Your task to perform on an android device: Go to notification settings Image 0: 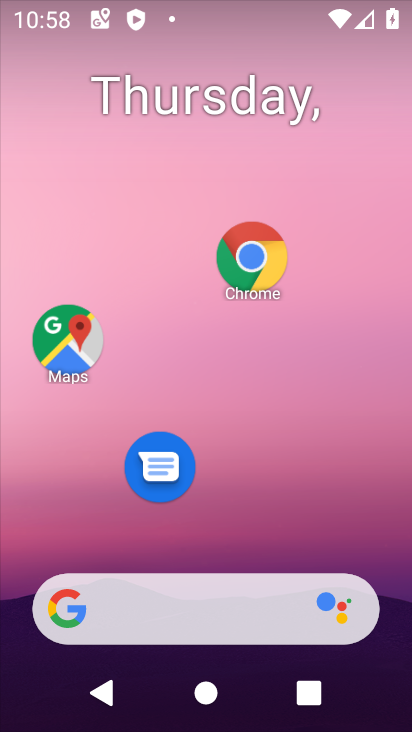
Step 0: drag from (138, 527) to (186, 182)
Your task to perform on an android device: Go to notification settings Image 1: 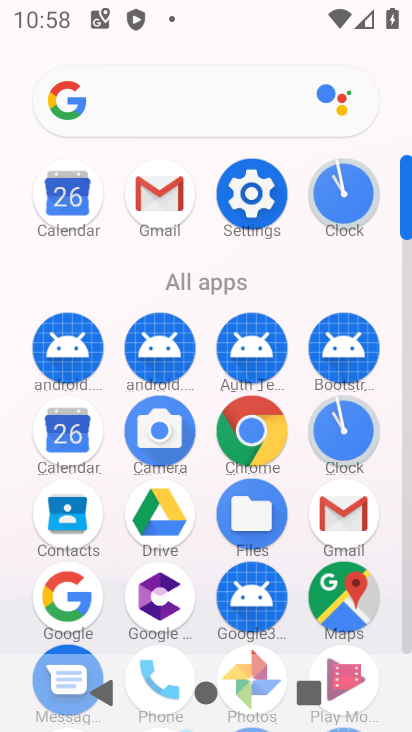
Step 1: click (249, 181)
Your task to perform on an android device: Go to notification settings Image 2: 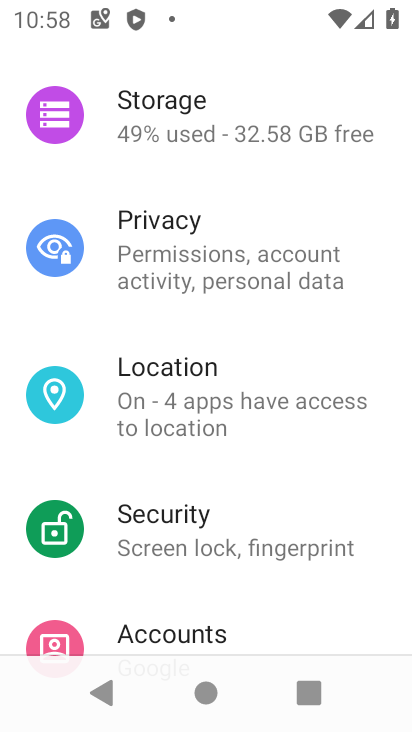
Step 2: drag from (184, 508) to (267, 110)
Your task to perform on an android device: Go to notification settings Image 3: 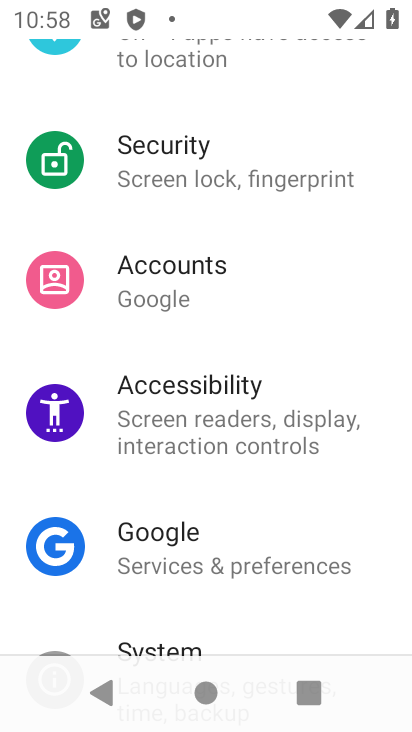
Step 3: drag from (269, 196) to (298, 610)
Your task to perform on an android device: Go to notification settings Image 4: 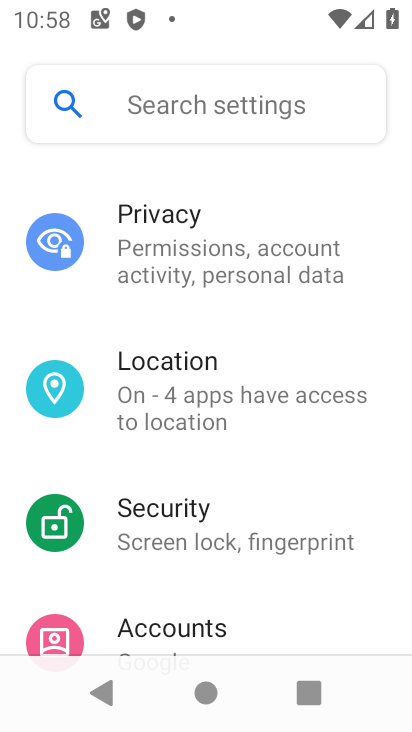
Step 4: drag from (293, 143) to (288, 572)
Your task to perform on an android device: Go to notification settings Image 5: 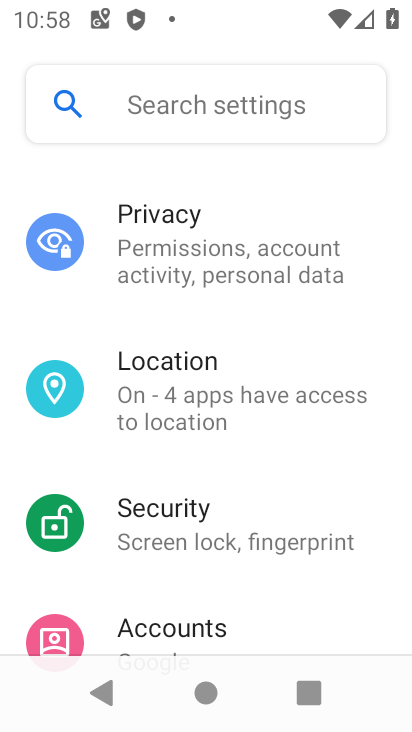
Step 5: drag from (266, 242) to (269, 610)
Your task to perform on an android device: Go to notification settings Image 6: 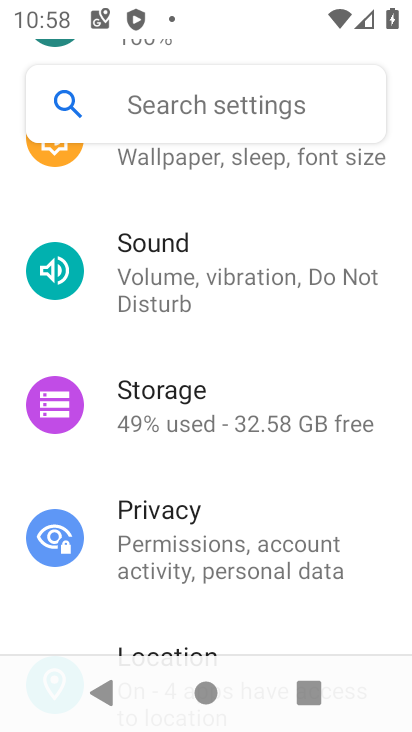
Step 6: drag from (244, 276) to (259, 643)
Your task to perform on an android device: Go to notification settings Image 7: 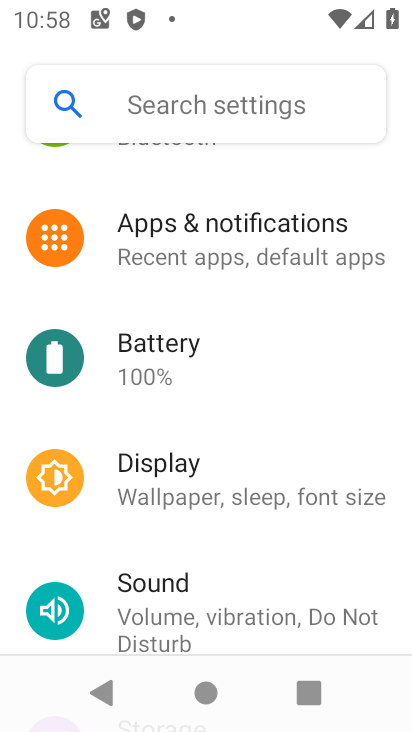
Step 7: click (242, 257)
Your task to perform on an android device: Go to notification settings Image 8: 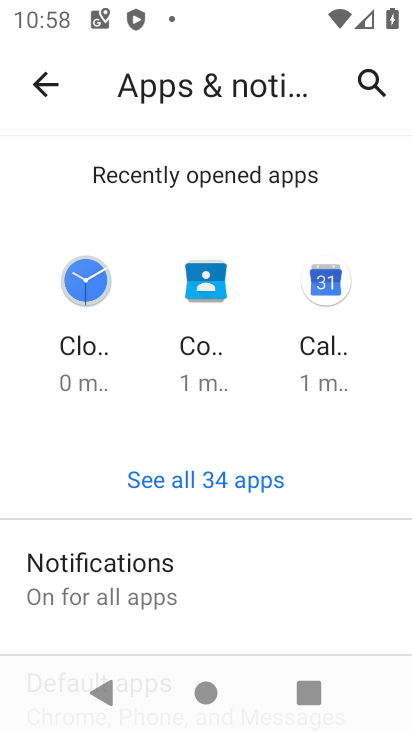
Step 8: task complete